Your task to perform on an android device: Open the stopwatch Image 0: 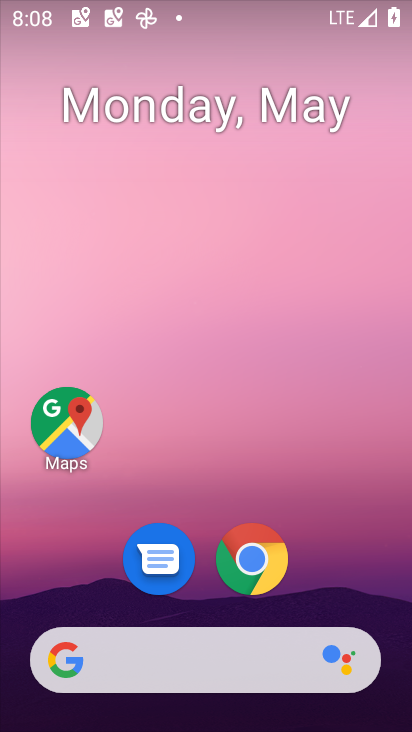
Step 0: drag from (402, 634) to (273, 85)
Your task to perform on an android device: Open the stopwatch Image 1: 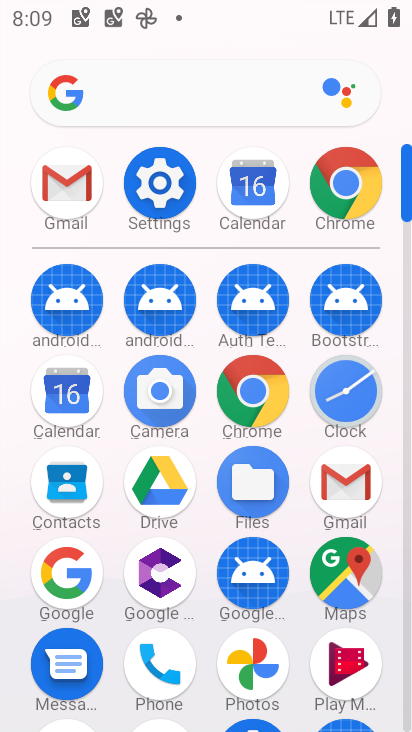
Step 1: click (361, 399)
Your task to perform on an android device: Open the stopwatch Image 2: 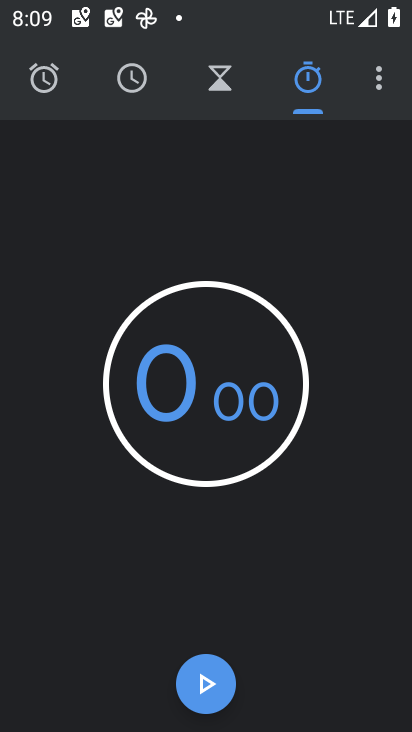
Step 2: task complete